Your task to perform on an android device: choose inbox layout in the gmail app Image 0: 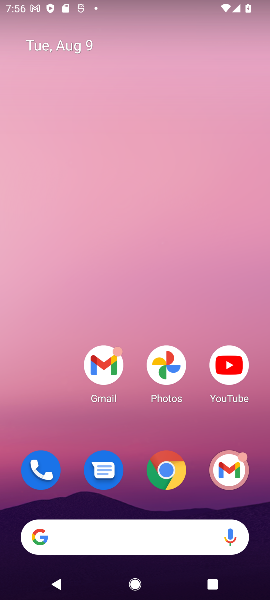
Step 0: drag from (206, 1) to (172, 10)
Your task to perform on an android device: choose inbox layout in the gmail app Image 1: 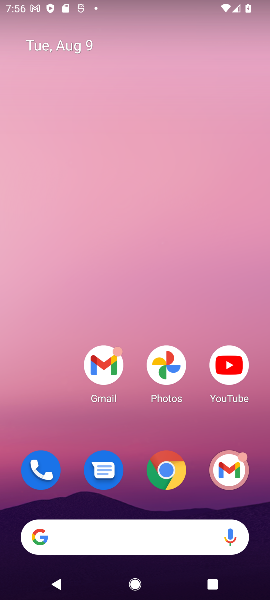
Step 1: click (232, 475)
Your task to perform on an android device: choose inbox layout in the gmail app Image 2: 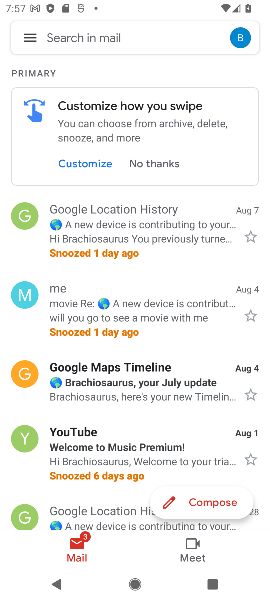
Step 2: click (28, 37)
Your task to perform on an android device: choose inbox layout in the gmail app Image 3: 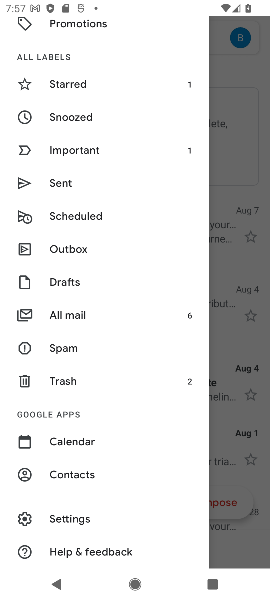
Step 3: click (75, 521)
Your task to perform on an android device: choose inbox layout in the gmail app Image 4: 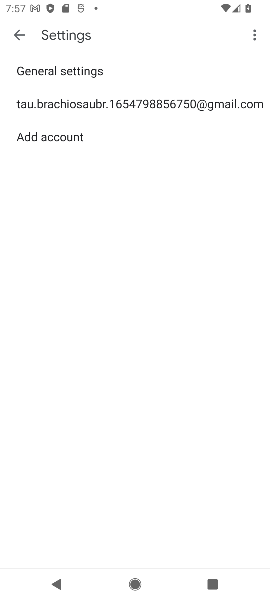
Step 4: click (136, 107)
Your task to perform on an android device: choose inbox layout in the gmail app Image 5: 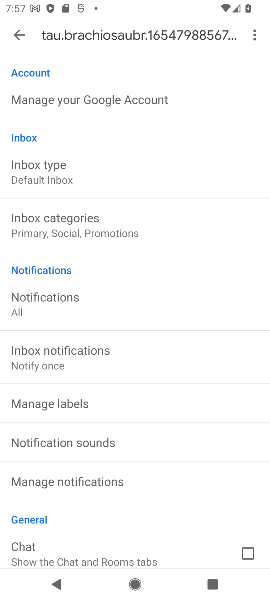
Step 5: click (67, 177)
Your task to perform on an android device: choose inbox layout in the gmail app Image 6: 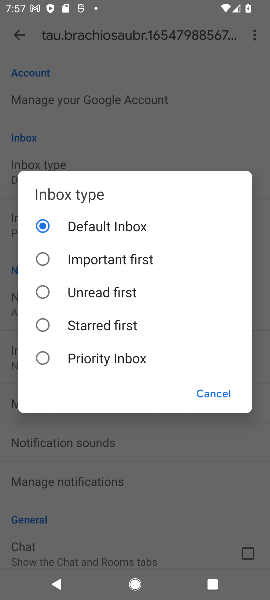
Step 6: click (64, 351)
Your task to perform on an android device: choose inbox layout in the gmail app Image 7: 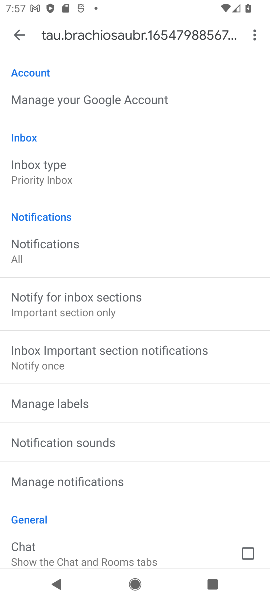
Step 7: task complete